Your task to perform on an android device: empty trash in google photos Image 0: 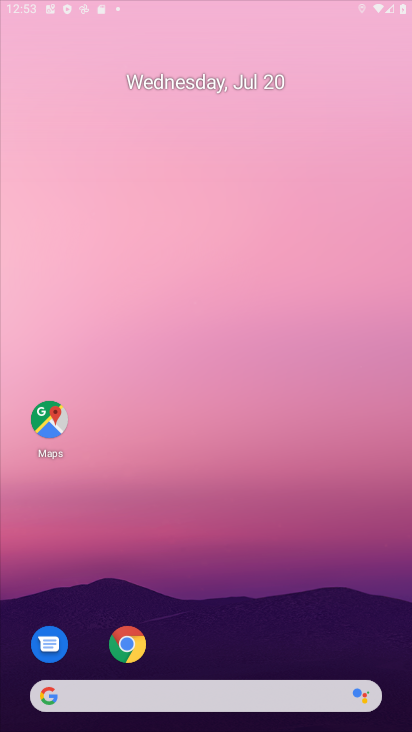
Step 0: press home button
Your task to perform on an android device: empty trash in google photos Image 1: 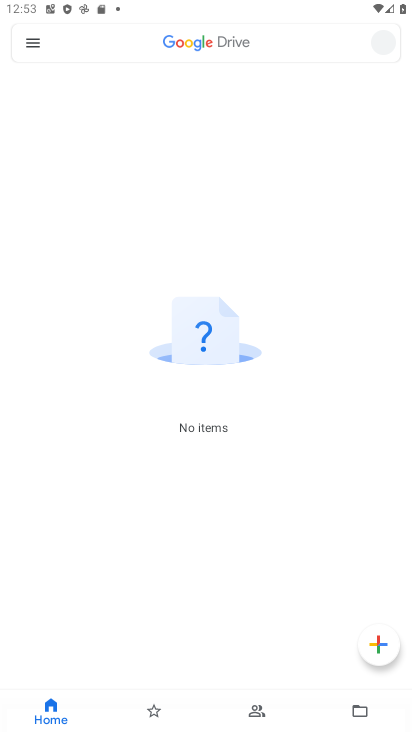
Step 1: press home button
Your task to perform on an android device: empty trash in google photos Image 2: 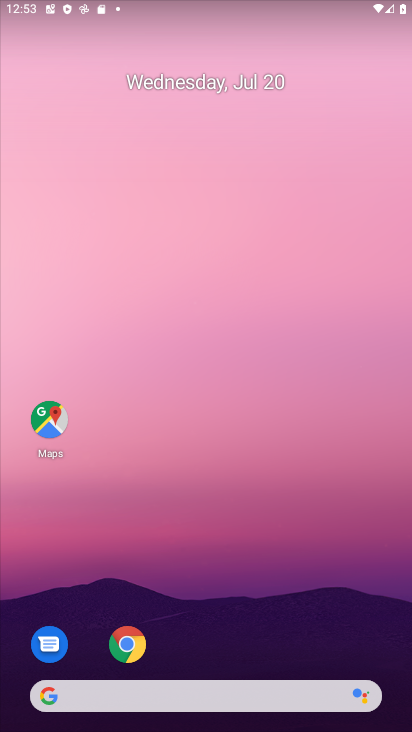
Step 2: drag from (223, 659) to (379, 47)
Your task to perform on an android device: empty trash in google photos Image 3: 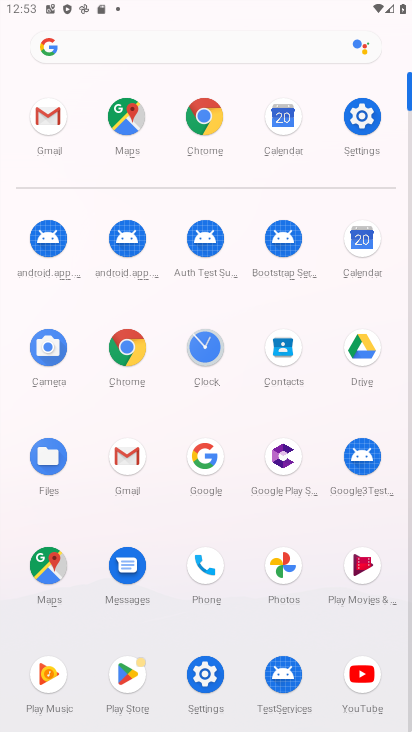
Step 3: click (281, 577)
Your task to perform on an android device: empty trash in google photos Image 4: 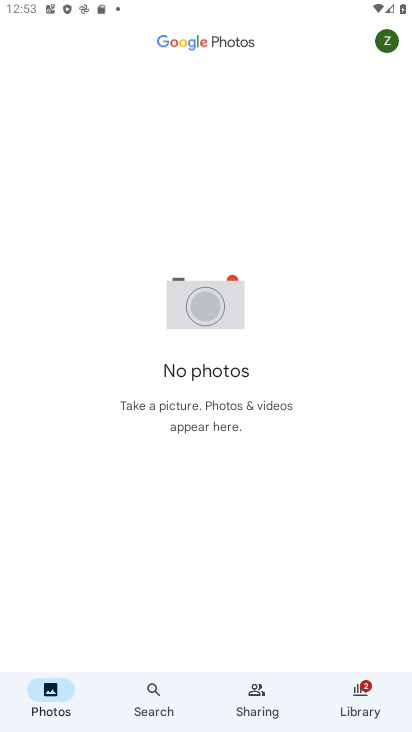
Step 4: click (371, 701)
Your task to perform on an android device: empty trash in google photos Image 5: 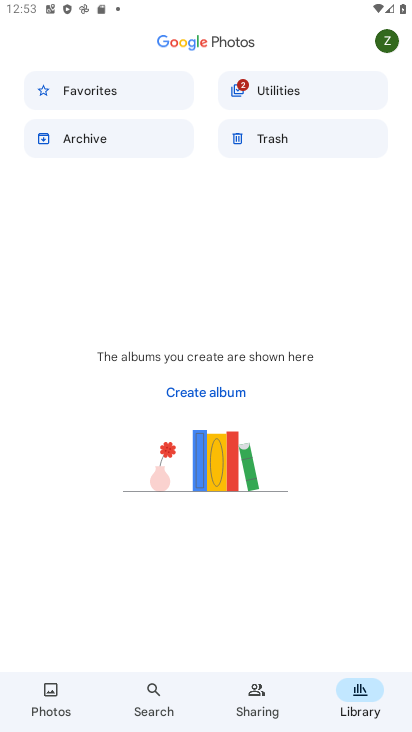
Step 5: click (322, 134)
Your task to perform on an android device: empty trash in google photos Image 6: 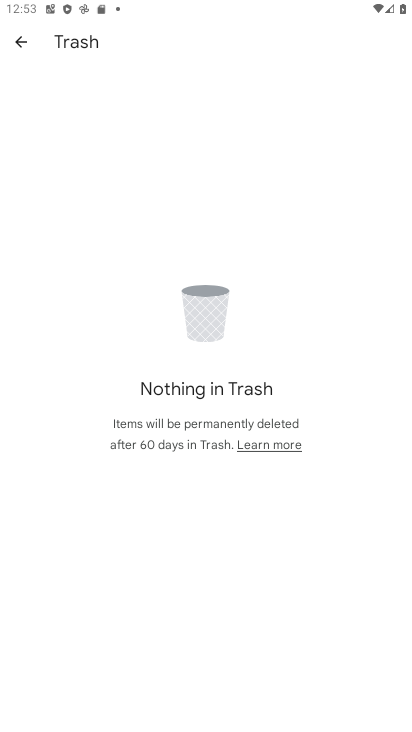
Step 6: task complete